Your task to perform on an android device: Is it going to rain today? Image 0: 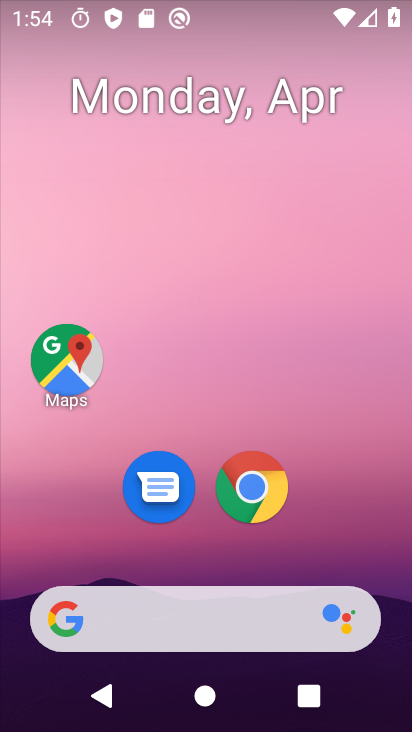
Step 0: drag from (275, 644) to (349, 48)
Your task to perform on an android device: Is it going to rain today? Image 1: 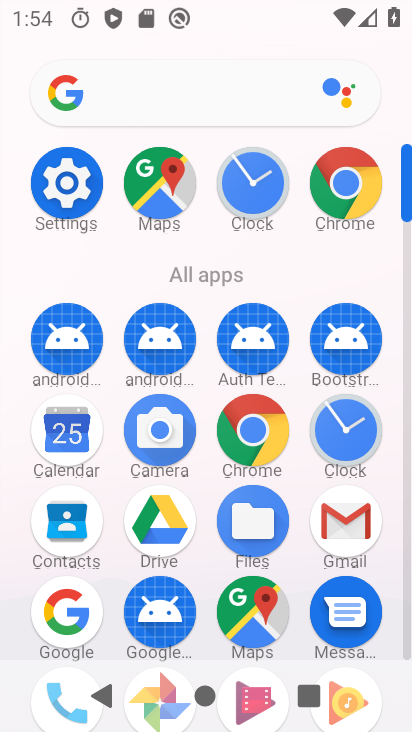
Step 1: click (210, 93)
Your task to perform on an android device: Is it going to rain today? Image 2: 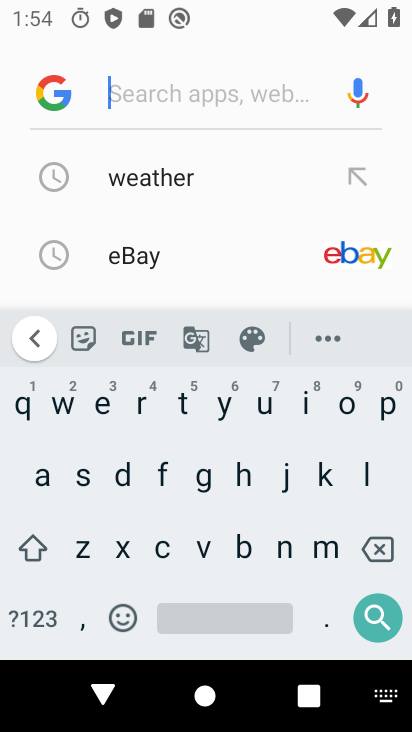
Step 2: click (188, 188)
Your task to perform on an android device: Is it going to rain today? Image 3: 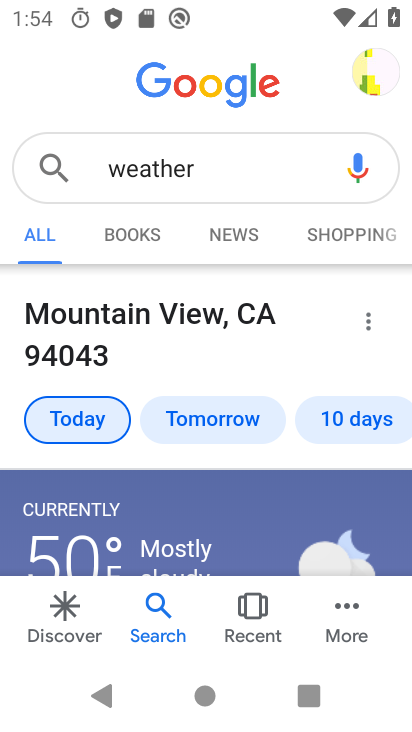
Step 3: click (63, 410)
Your task to perform on an android device: Is it going to rain today? Image 4: 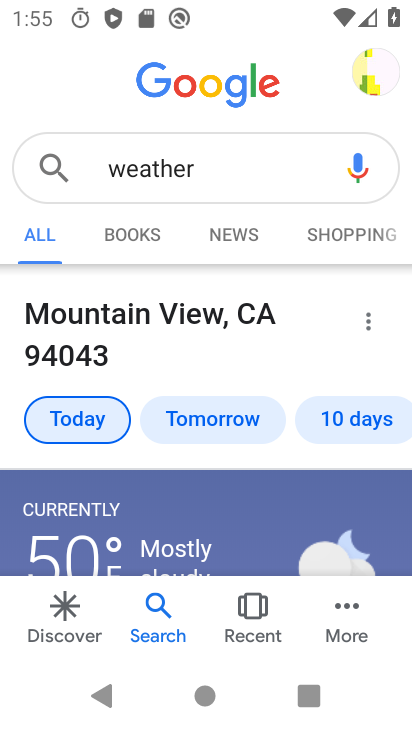
Step 4: click (58, 431)
Your task to perform on an android device: Is it going to rain today? Image 5: 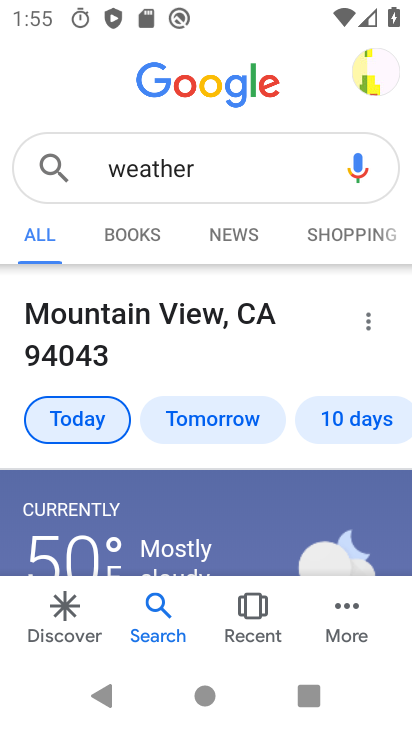
Step 5: task complete